Your task to perform on an android device: allow cookies in the chrome app Image 0: 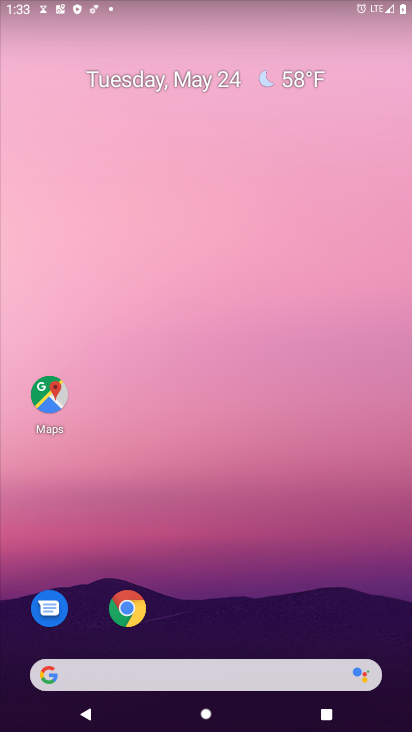
Step 0: press home button
Your task to perform on an android device: allow cookies in the chrome app Image 1: 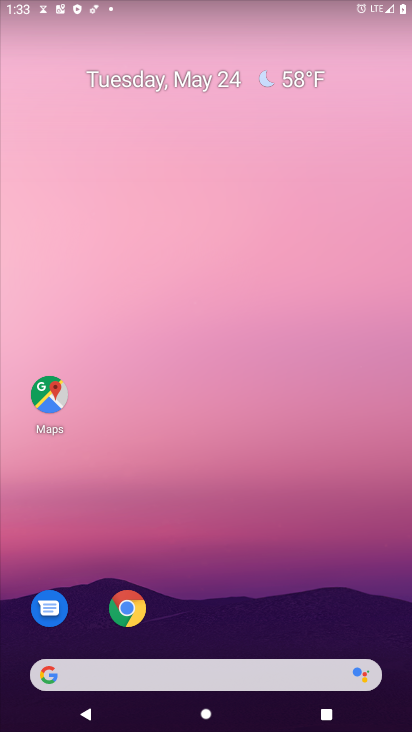
Step 1: drag from (246, 691) to (129, 129)
Your task to perform on an android device: allow cookies in the chrome app Image 2: 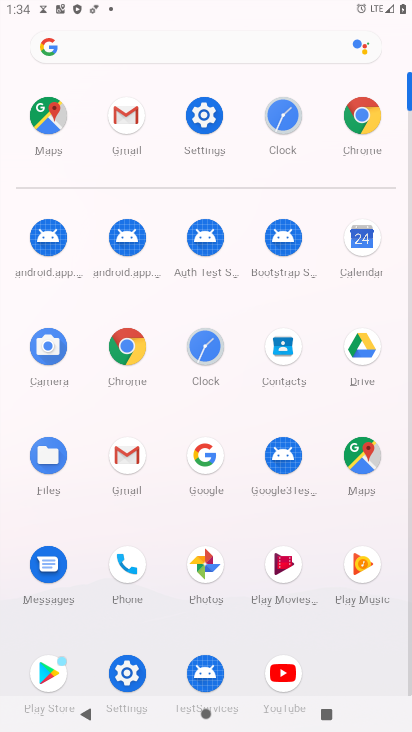
Step 2: click (369, 114)
Your task to perform on an android device: allow cookies in the chrome app Image 3: 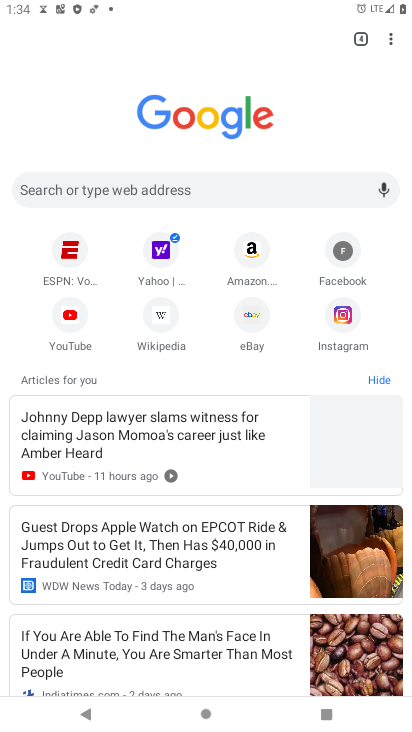
Step 3: click (387, 41)
Your task to perform on an android device: allow cookies in the chrome app Image 4: 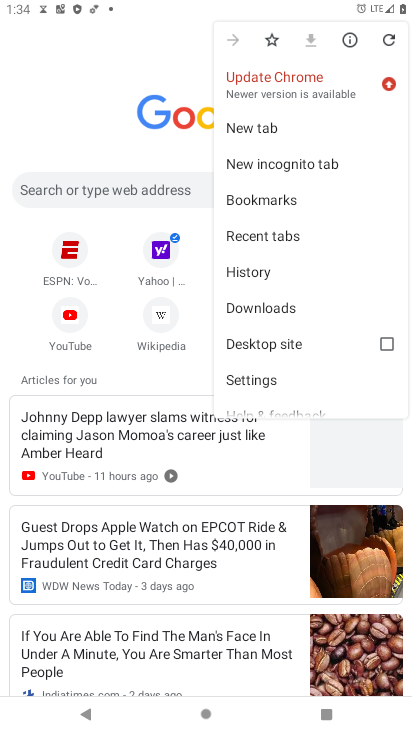
Step 4: click (253, 377)
Your task to perform on an android device: allow cookies in the chrome app Image 5: 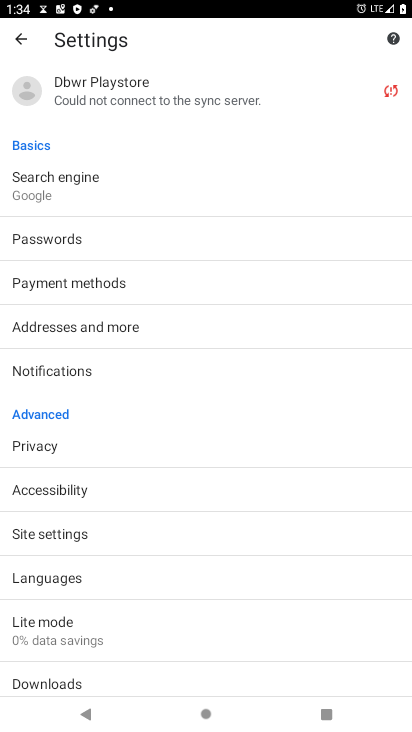
Step 5: click (64, 526)
Your task to perform on an android device: allow cookies in the chrome app Image 6: 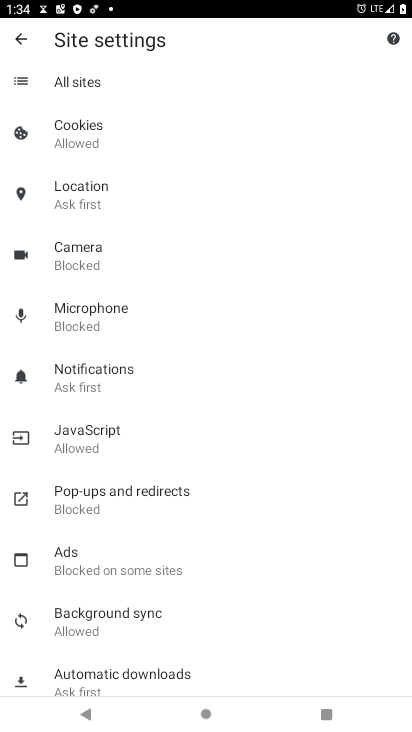
Step 6: click (97, 130)
Your task to perform on an android device: allow cookies in the chrome app Image 7: 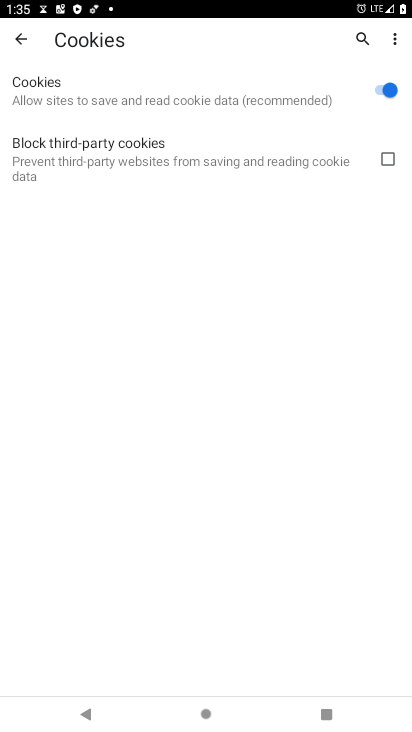
Step 7: click (367, 85)
Your task to perform on an android device: allow cookies in the chrome app Image 8: 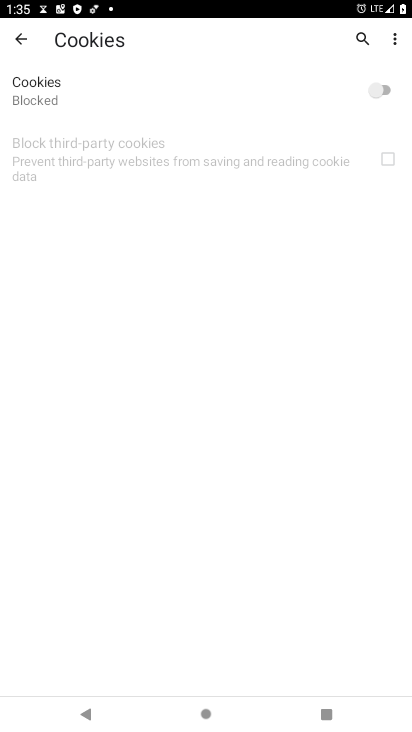
Step 8: click (367, 84)
Your task to perform on an android device: allow cookies in the chrome app Image 9: 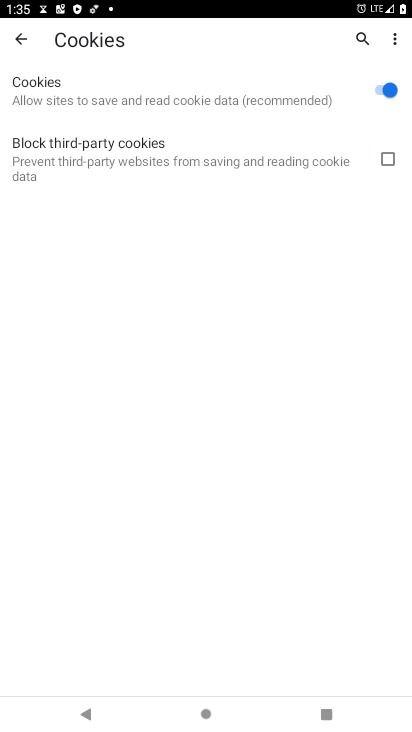
Step 9: task complete